Your task to perform on an android device: Do I have any events tomorrow? Image 0: 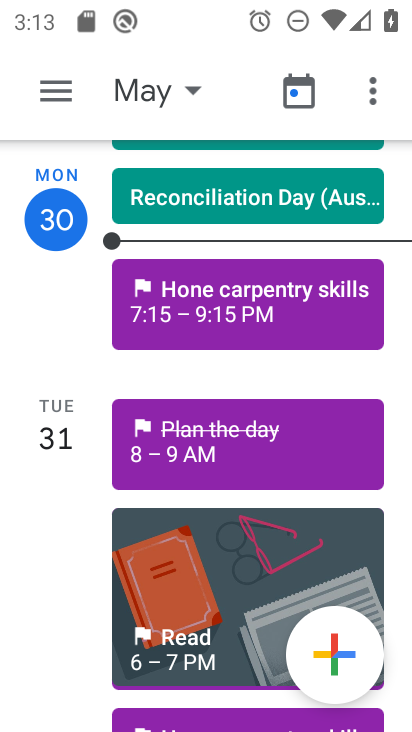
Step 0: press home button
Your task to perform on an android device: Do I have any events tomorrow? Image 1: 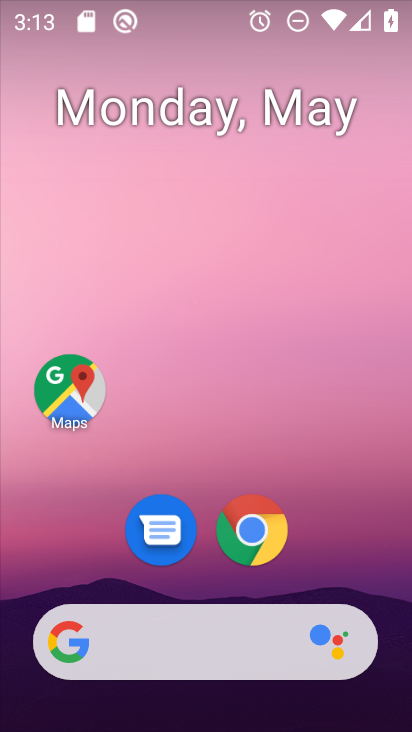
Step 1: click (72, 410)
Your task to perform on an android device: Do I have any events tomorrow? Image 2: 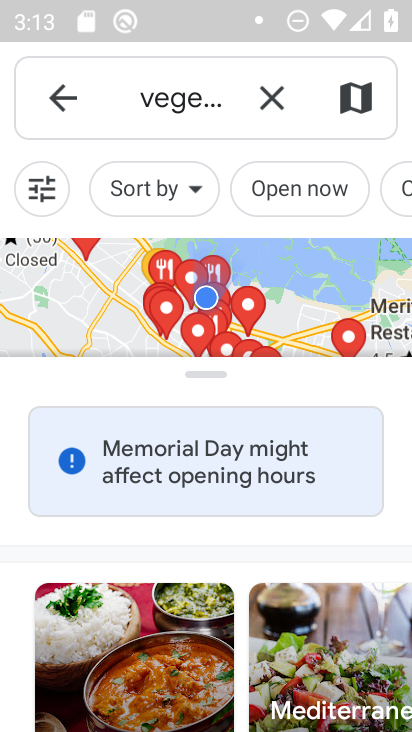
Step 2: task complete